Your task to perform on an android device: Go to accessibility settings Image 0: 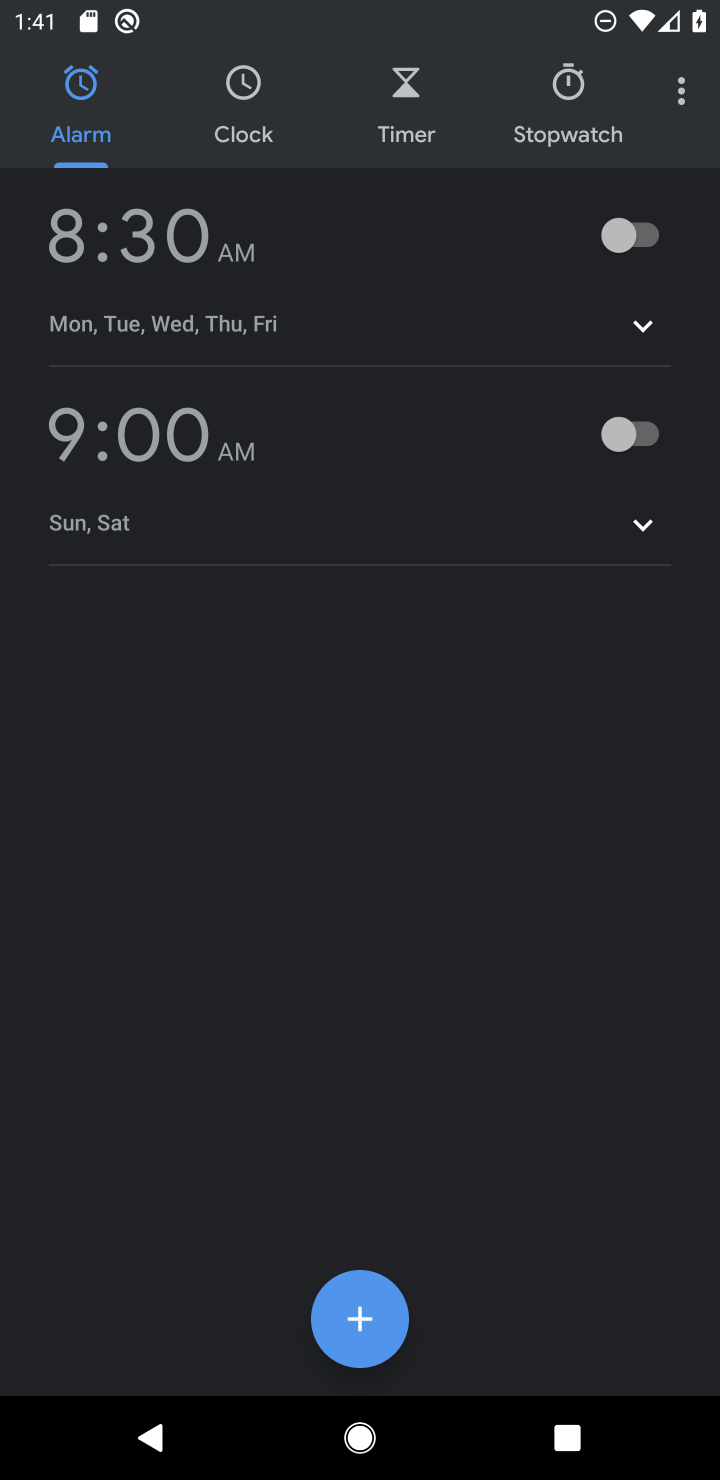
Step 0: press home button
Your task to perform on an android device: Go to accessibility settings Image 1: 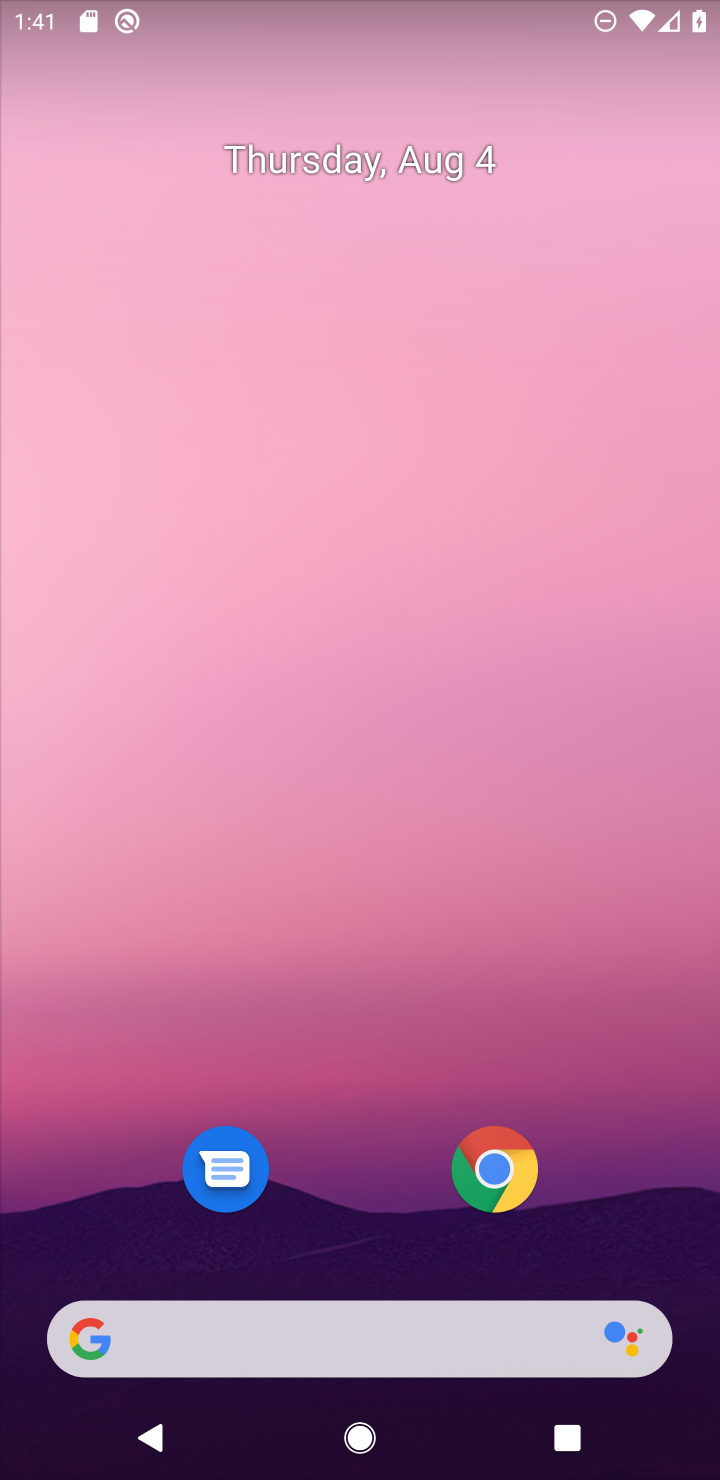
Step 1: drag from (369, 837) to (377, 120)
Your task to perform on an android device: Go to accessibility settings Image 2: 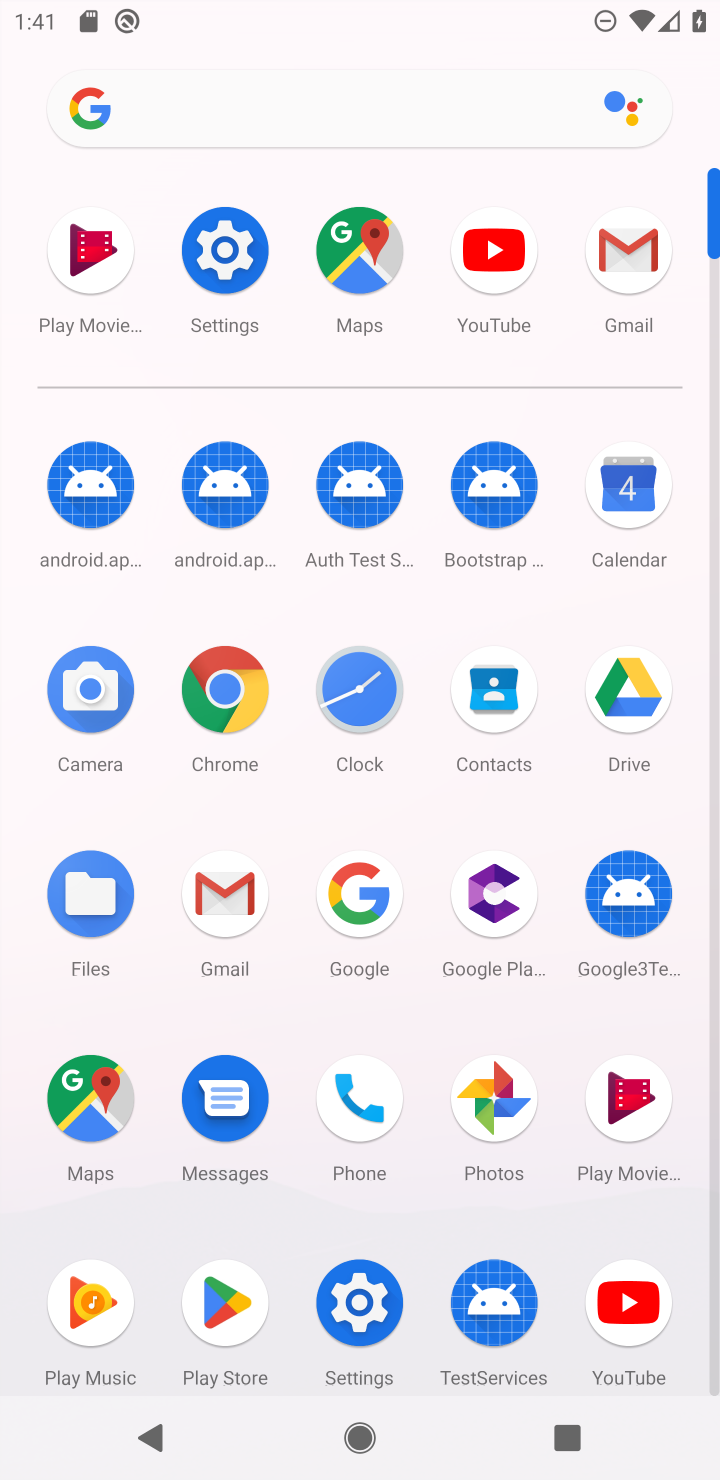
Step 2: click (233, 272)
Your task to perform on an android device: Go to accessibility settings Image 3: 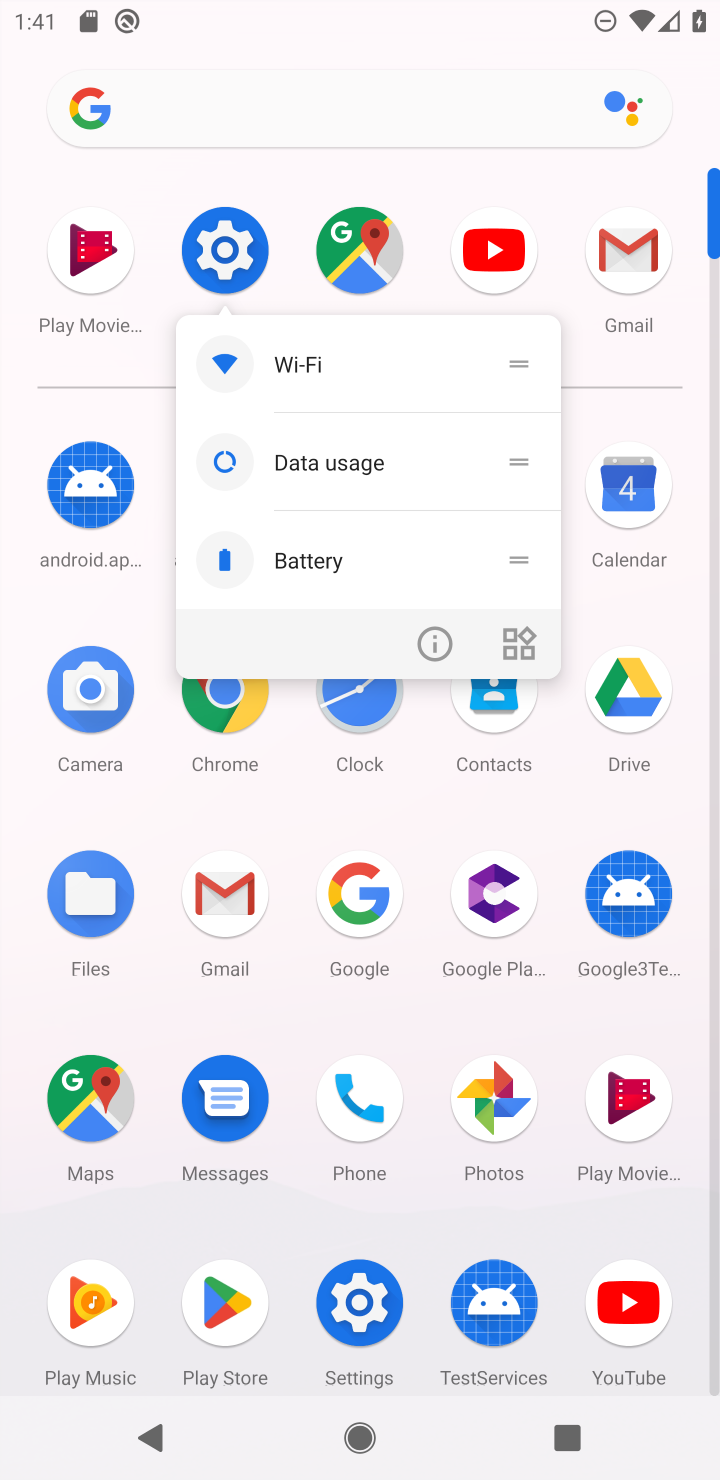
Step 3: click (233, 263)
Your task to perform on an android device: Go to accessibility settings Image 4: 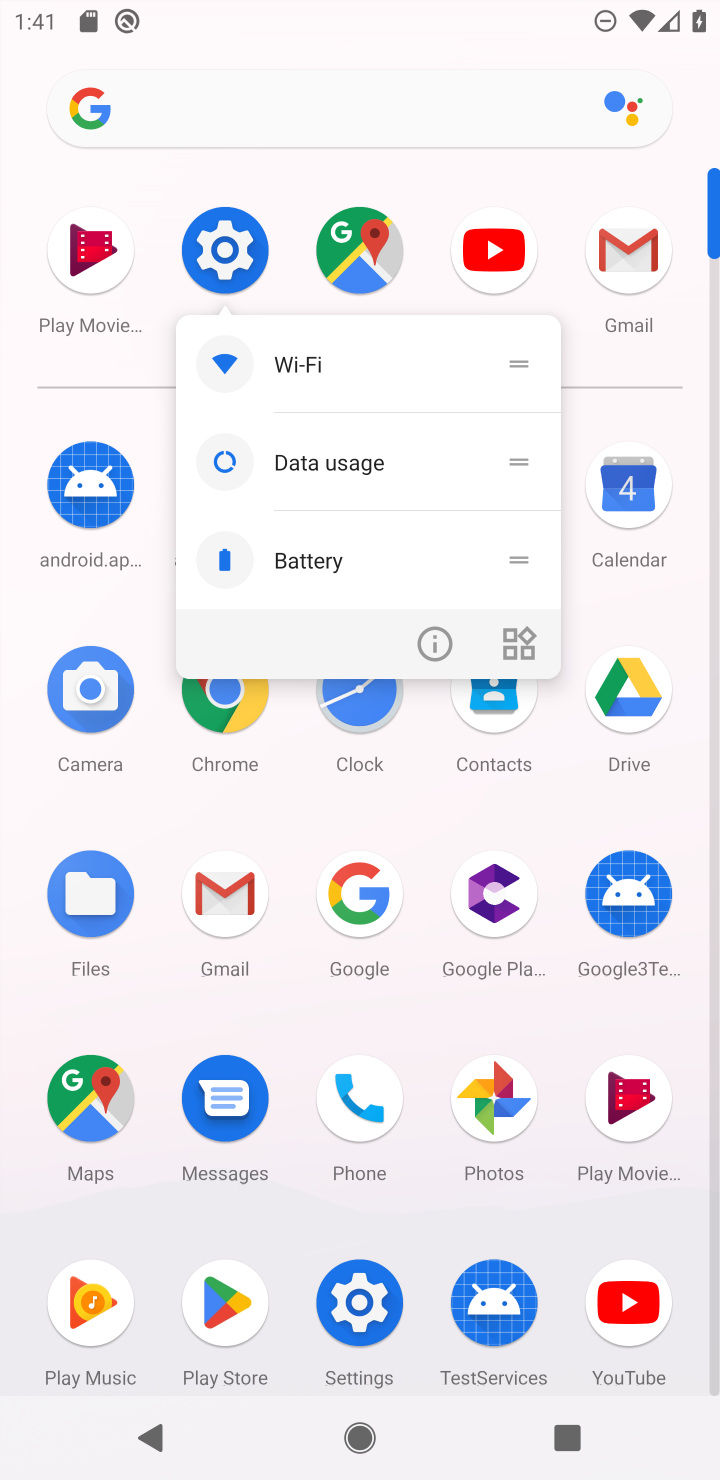
Step 4: click (233, 261)
Your task to perform on an android device: Go to accessibility settings Image 5: 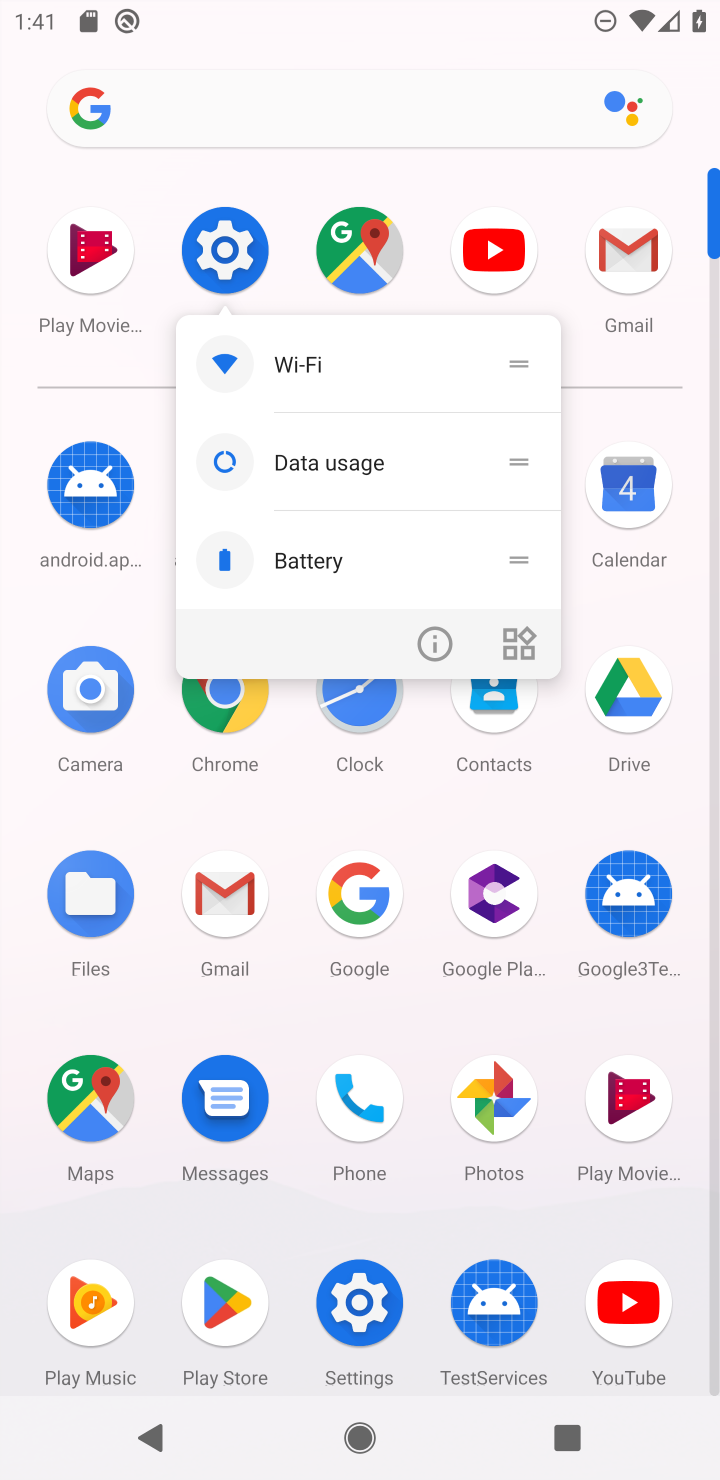
Step 5: click (224, 258)
Your task to perform on an android device: Go to accessibility settings Image 6: 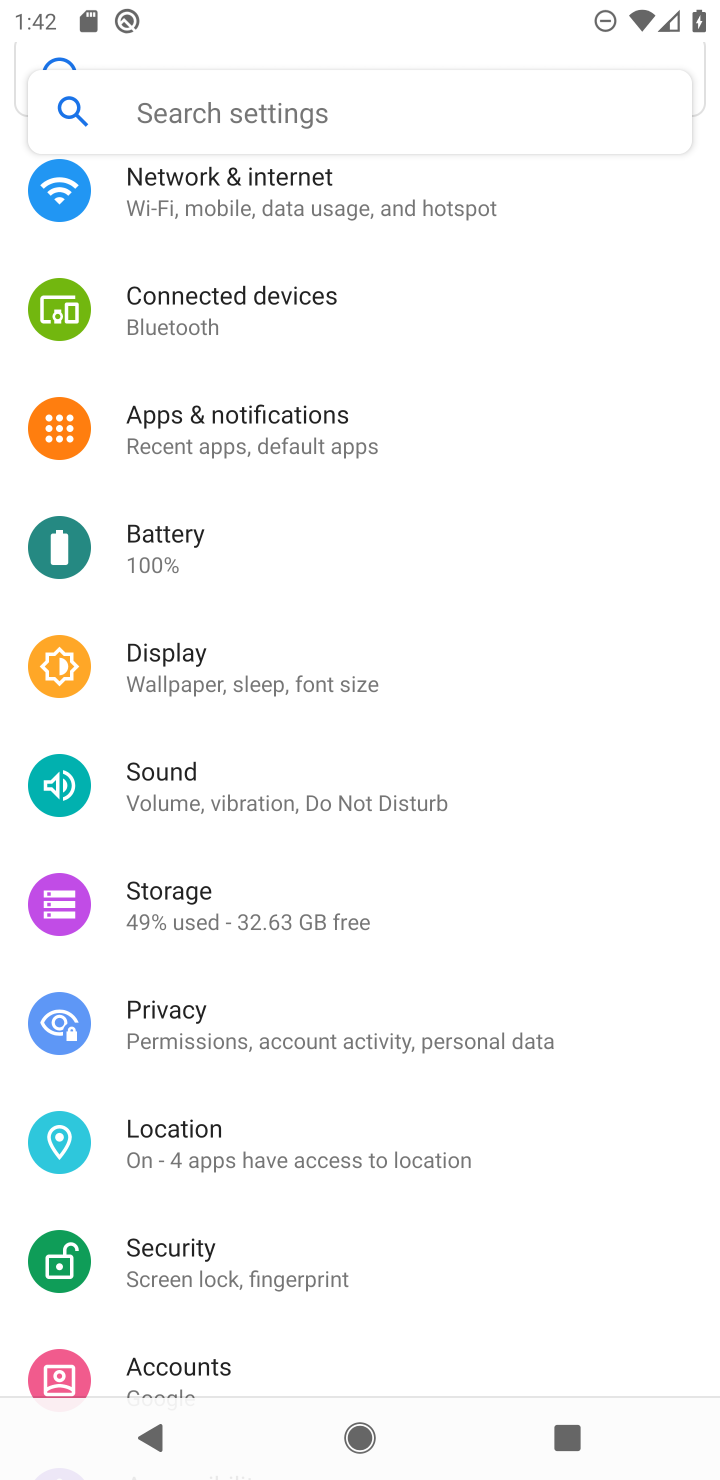
Step 6: drag from (578, 1014) to (642, 426)
Your task to perform on an android device: Go to accessibility settings Image 7: 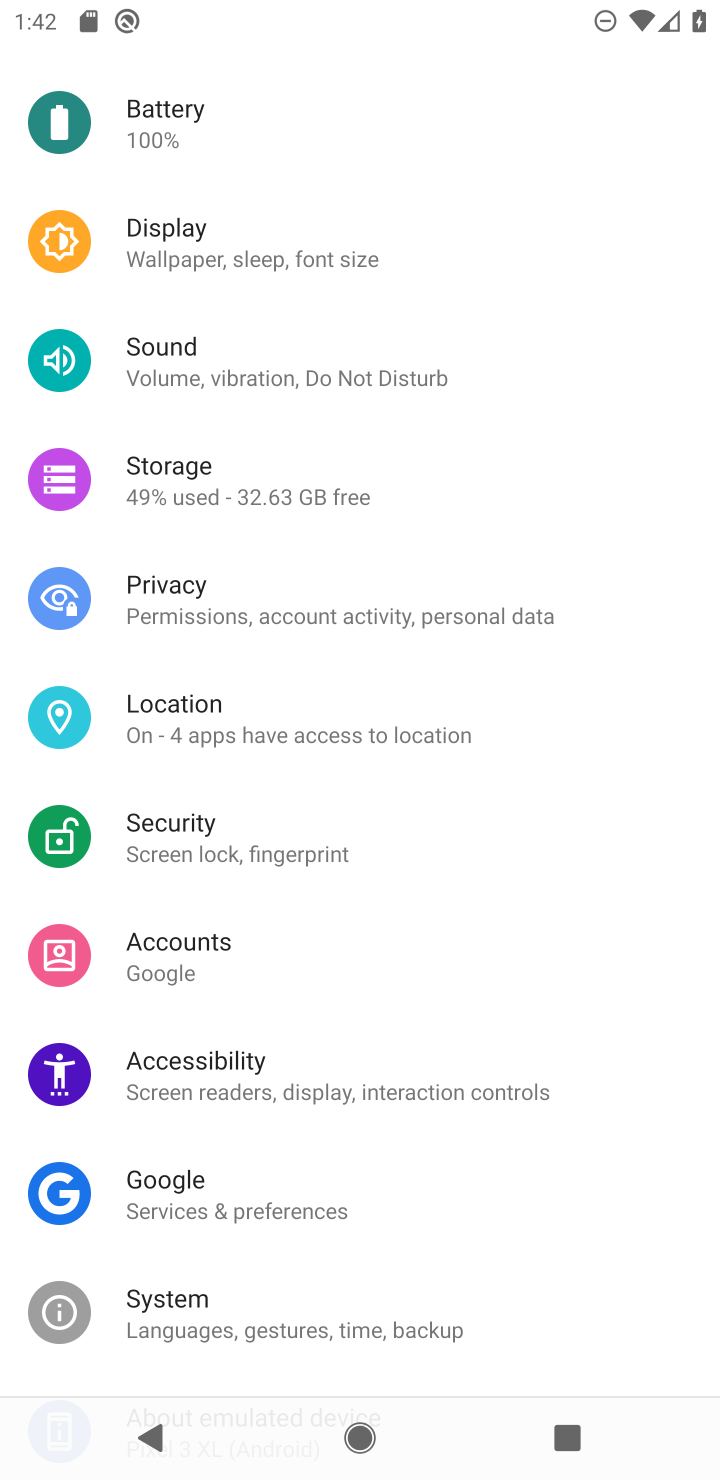
Step 7: click (185, 1066)
Your task to perform on an android device: Go to accessibility settings Image 8: 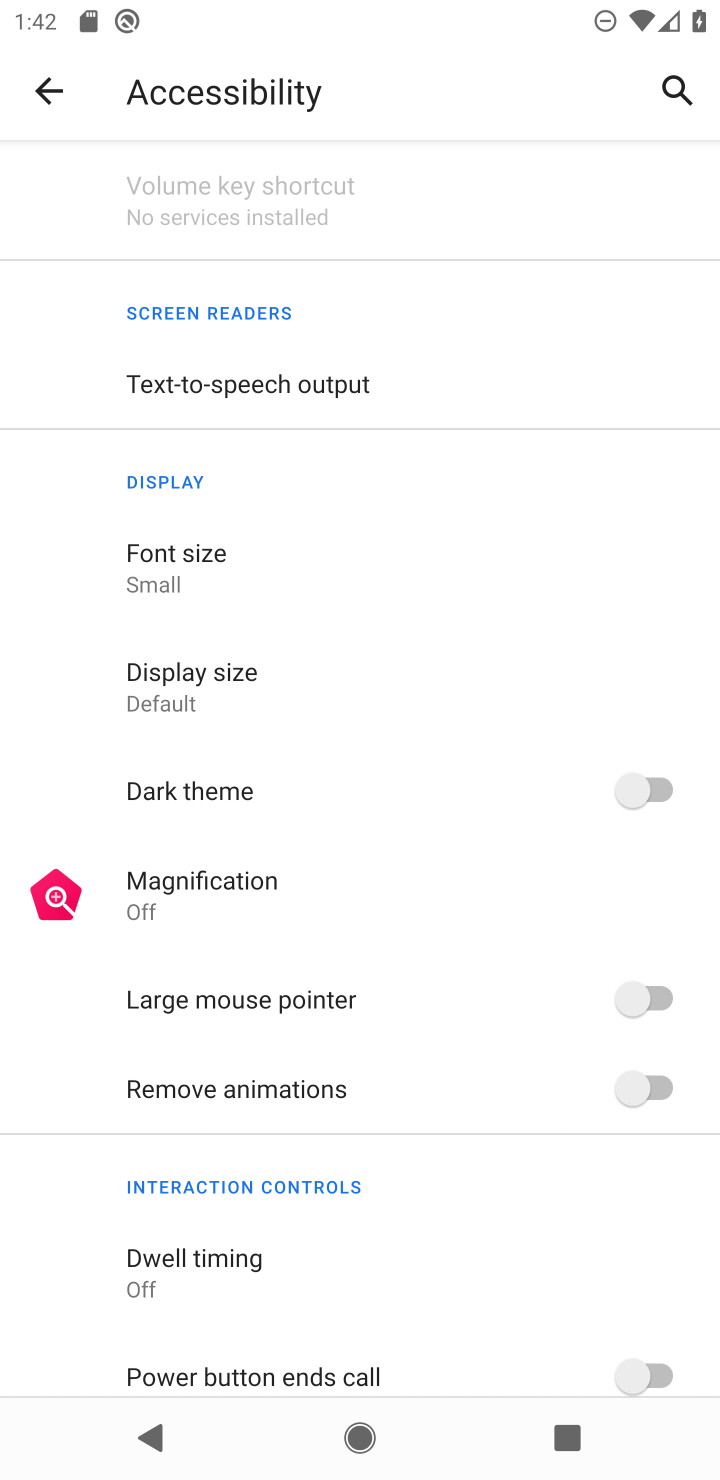
Step 8: task complete